Your task to perform on an android device: toggle javascript in the chrome app Image 0: 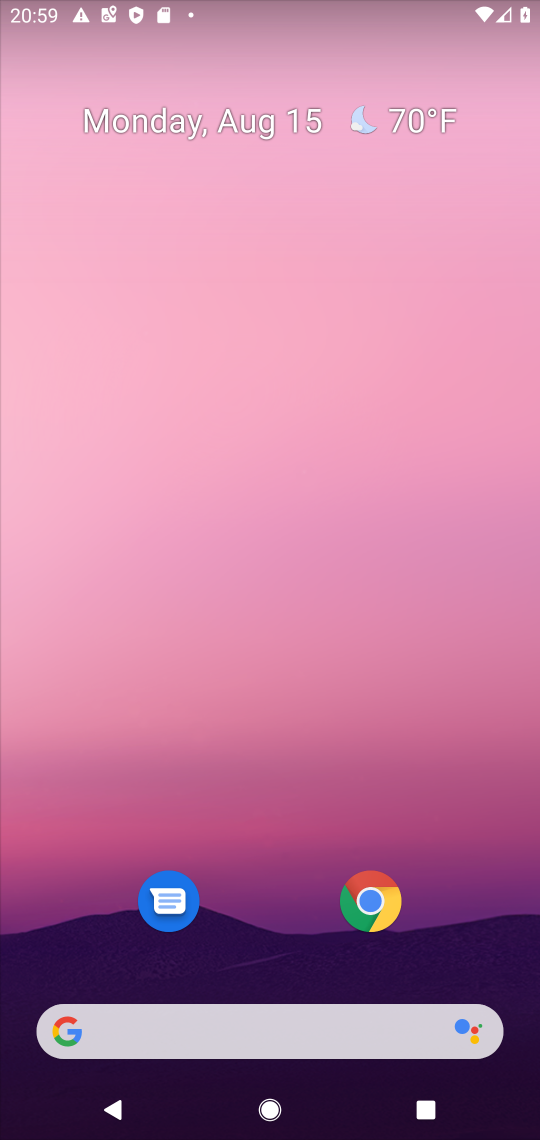
Step 0: press home button
Your task to perform on an android device: toggle javascript in the chrome app Image 1: 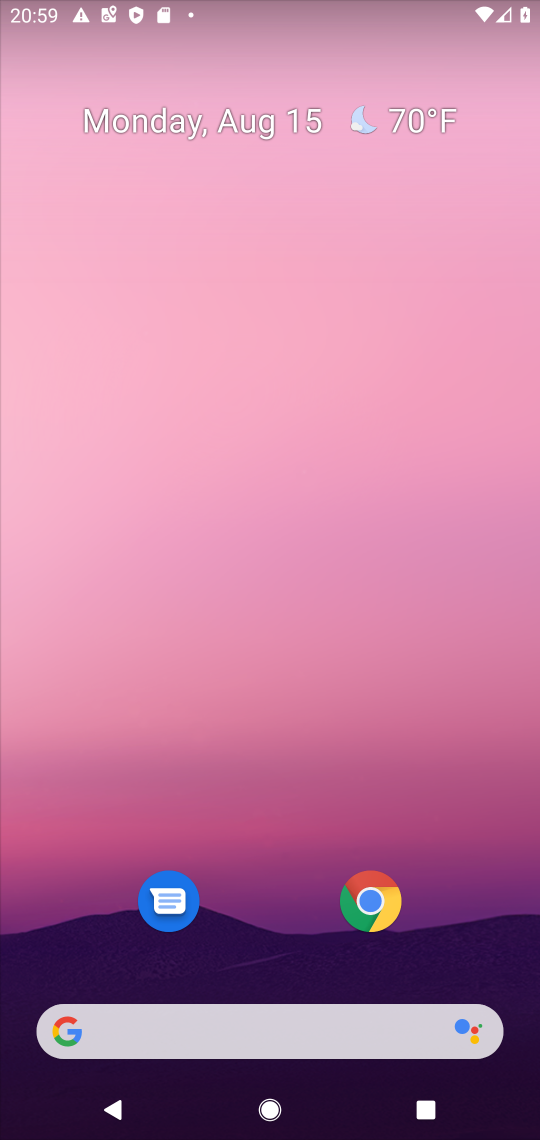
Step 1: drag from (292, 908) to (289, 130)
Your task to perform on an android device: toggle javascript in the chrome app Image 2: 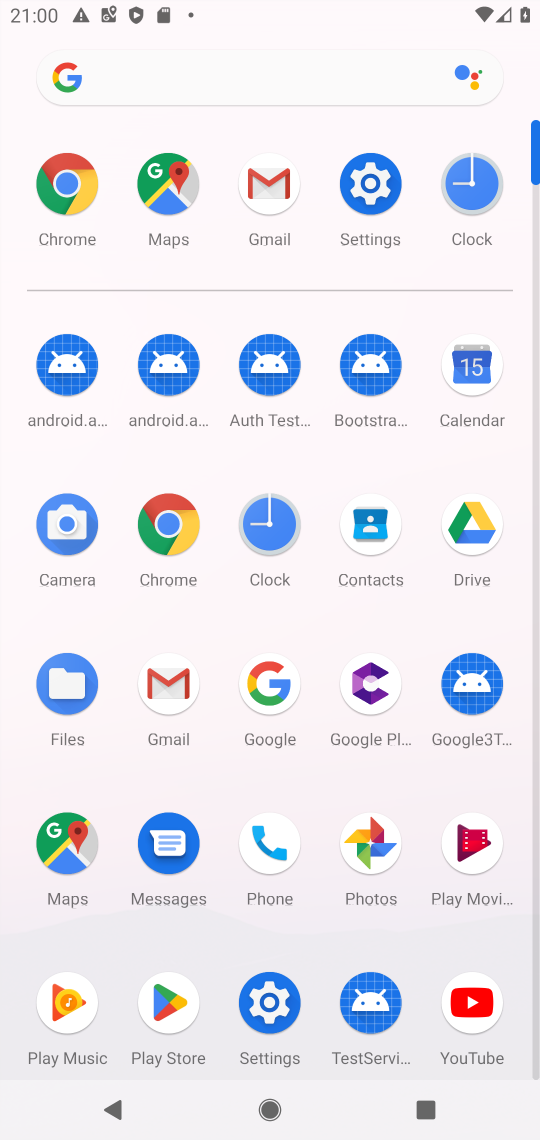
Step 2: click (177, 551)
Your task to perform on an android device: toggle javascript in the chrome app Image 3: 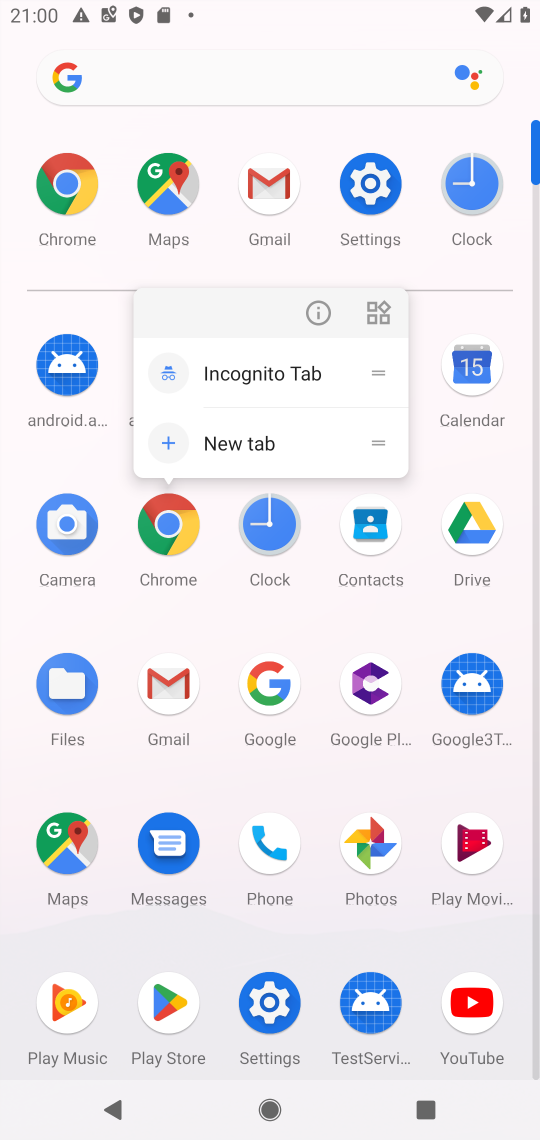
Step 3: click (175, 552)
Your task to perform on an android device: toggle javascript in the chrome app Image 4: 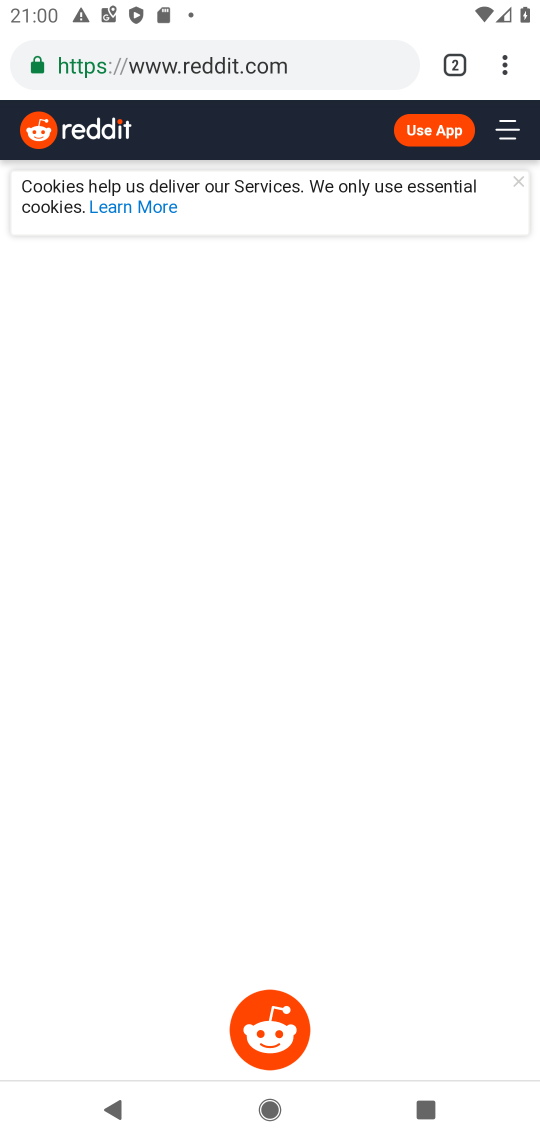
Step 4: click (503, 57)
Your task to perform on an android device: toggle javascript in the chrome app Image 5: 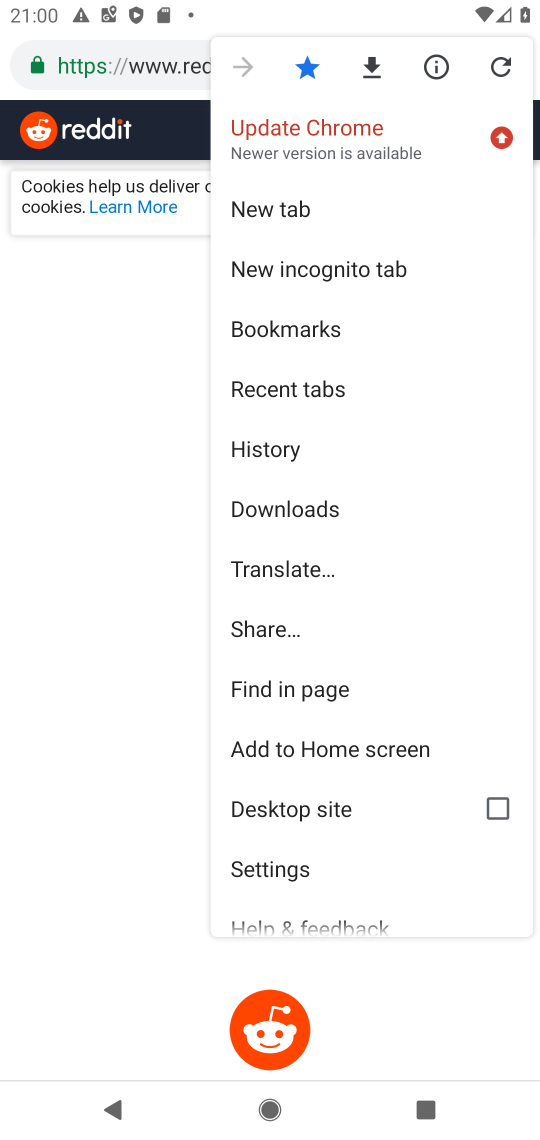
Step 5: click (288, 860)
Your task to perform on an android device: toggle javascript in the chrome app Image 6: 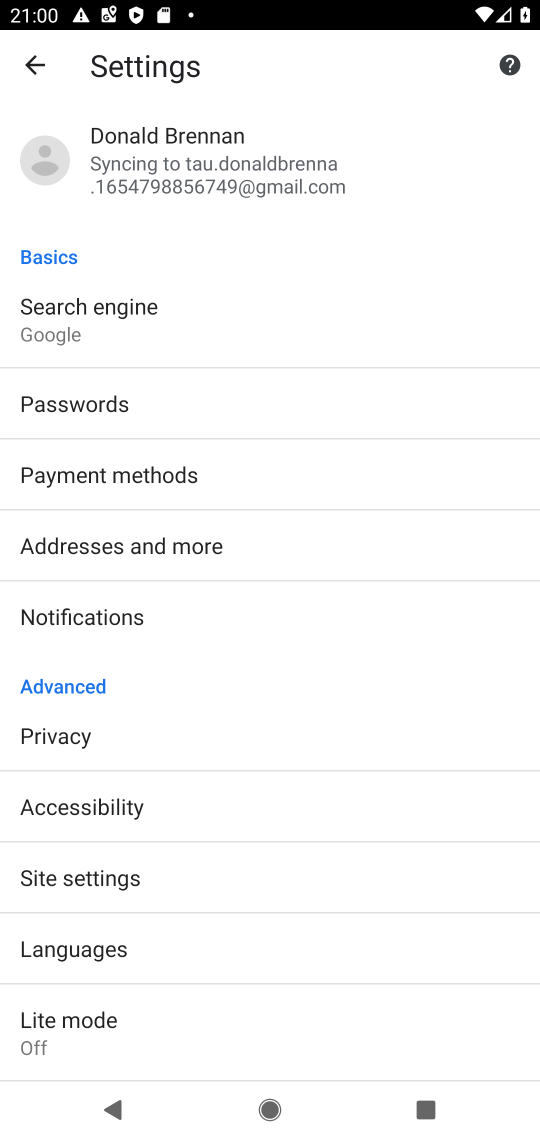
Step 6: drag from (140, 958) to (136, 594)
Your task to perform on an android device: toggle javascript in the chrome app Image 7: 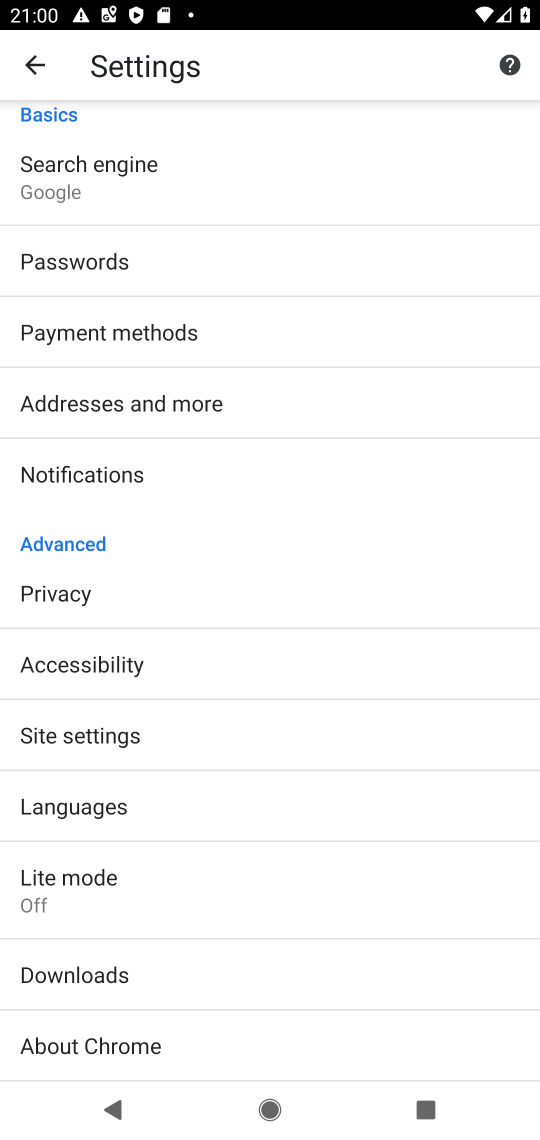
Step 7: click (106, 724)
Your task to perform on an android device: toggle javascript in the chrome app Image 8: 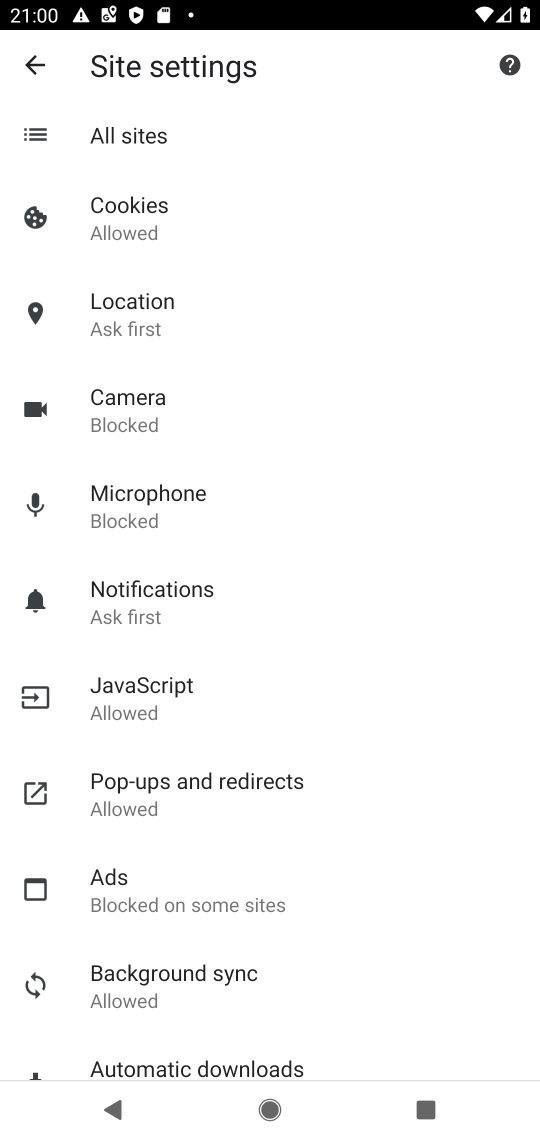
Step 8: click (139, 692)
Your task to perform on an android device: toggle javascript in the chrome app Image 9: 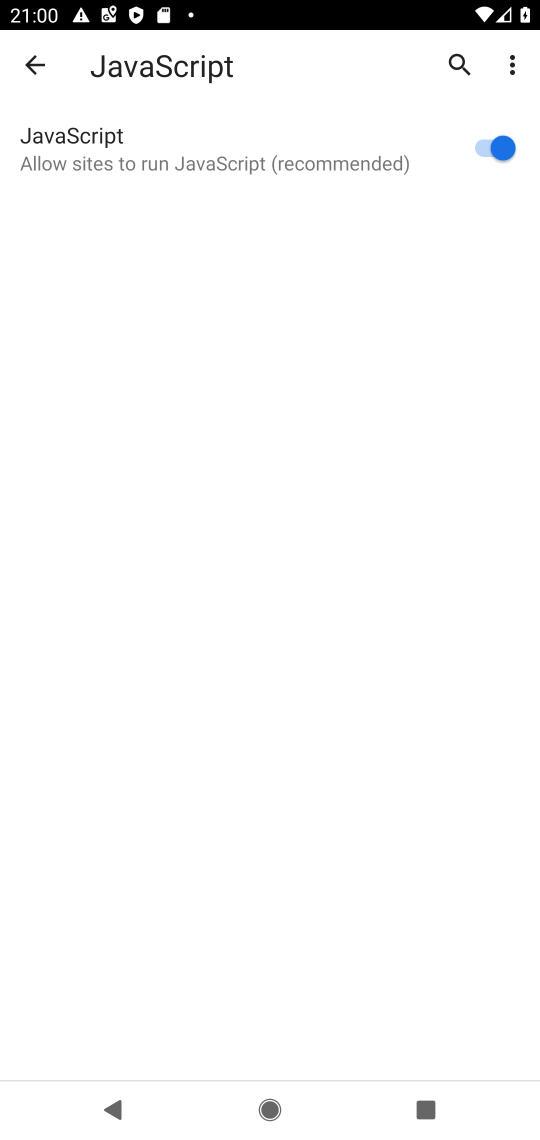
Step 9: click (460, 146)
Your task to perform on an android device: toggle javascript in the chrome app Image 10: 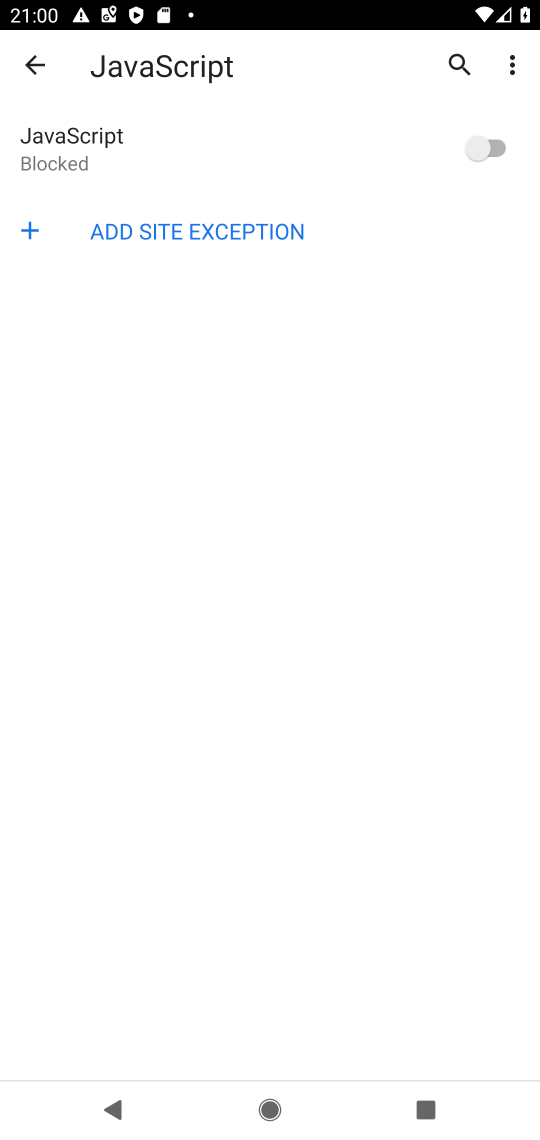
Step 10: task complete